Your task to perform on an android device: Open settings on Google Maps Image 0: 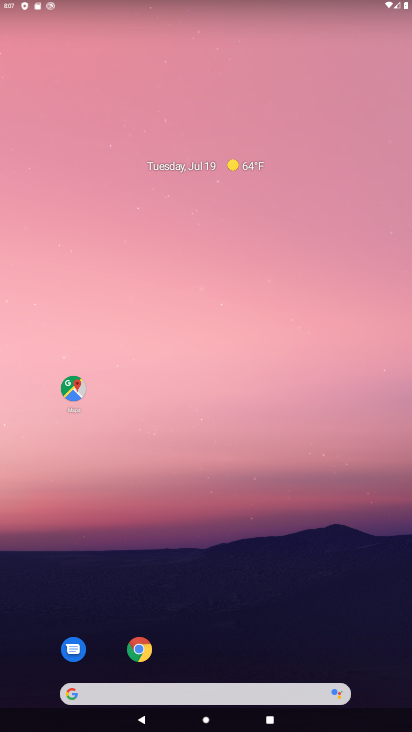
Step 0: click (58, 382)
Your task to perform on an android device: Open settings on Google Maps Image 1: 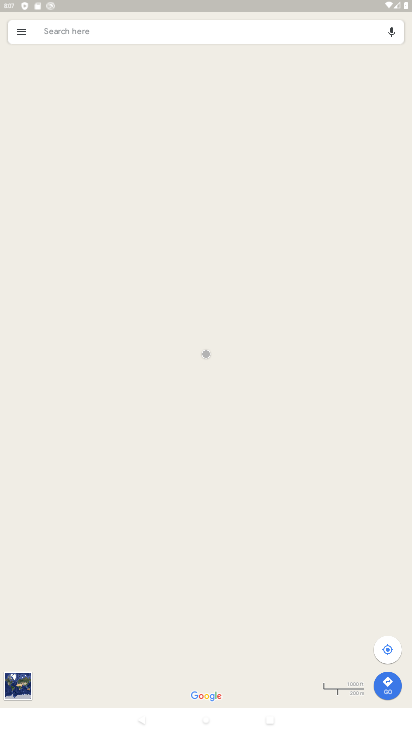
Step 1: click (21, 35)
Your task to perform on an android device: Open settings on Google Maps Image 2: 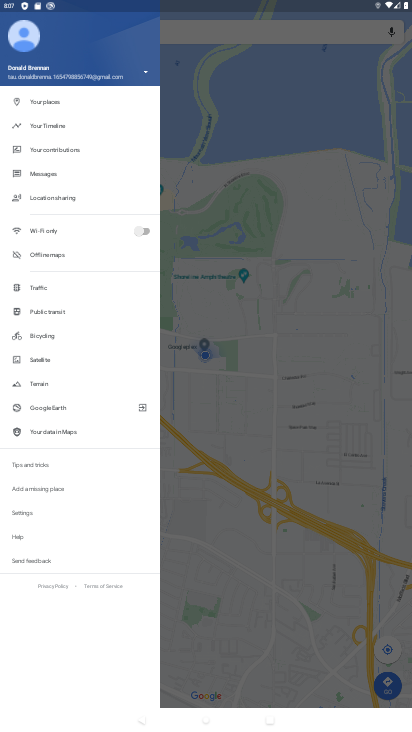
Step 2: click (48, 511)
Your task to perform on an android device: Open settings on Google Maps Image 3: 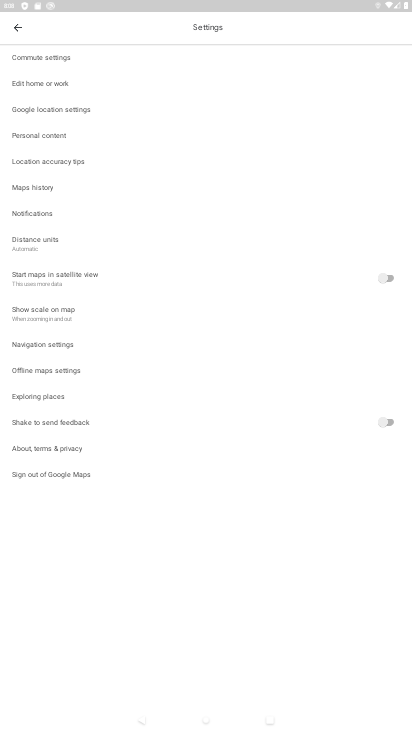
Step 3: task complete